Your task to perform on an android device: Search for seafood restaurants on Google Maps Image 0: 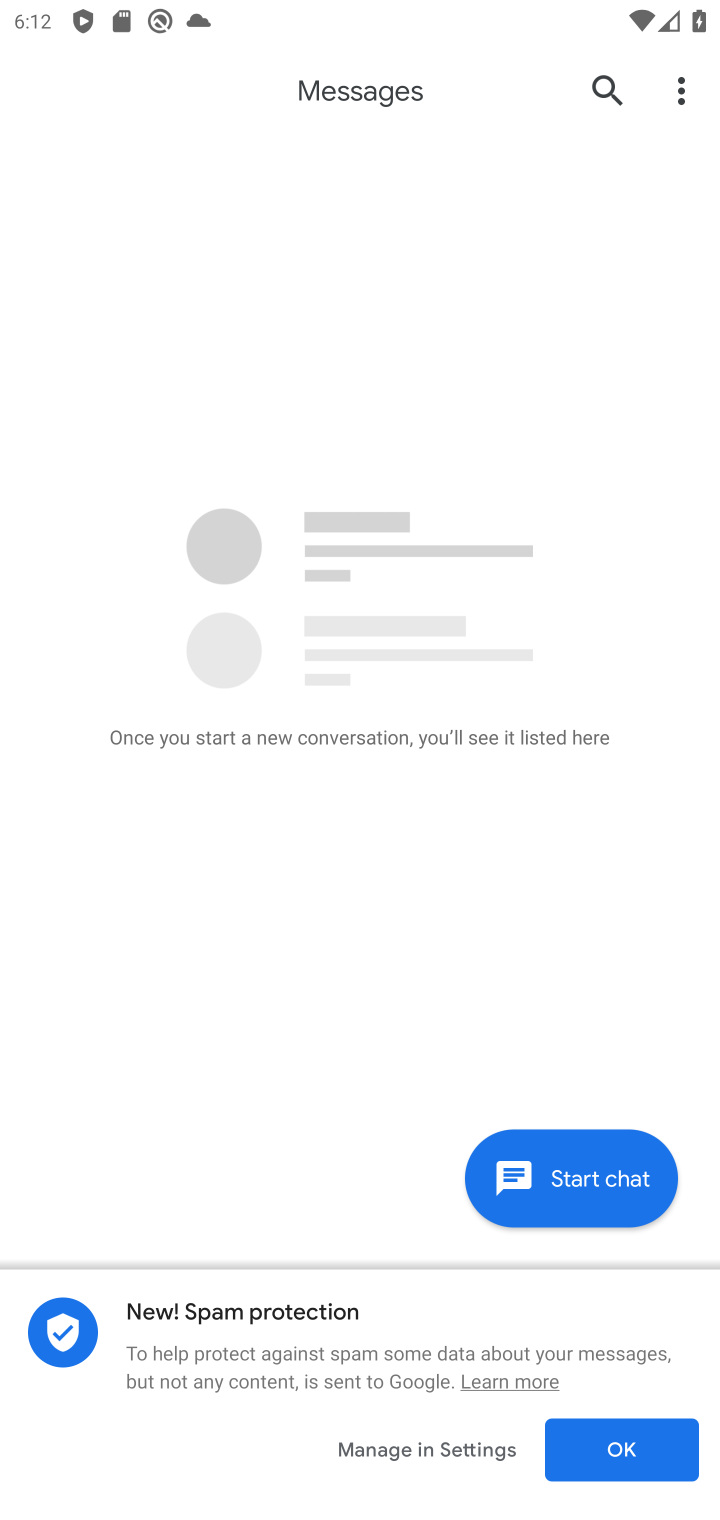
Step 0: press home button
Your task to perform on an android device: Search for seafood restaurants on Google Maps Image 1: 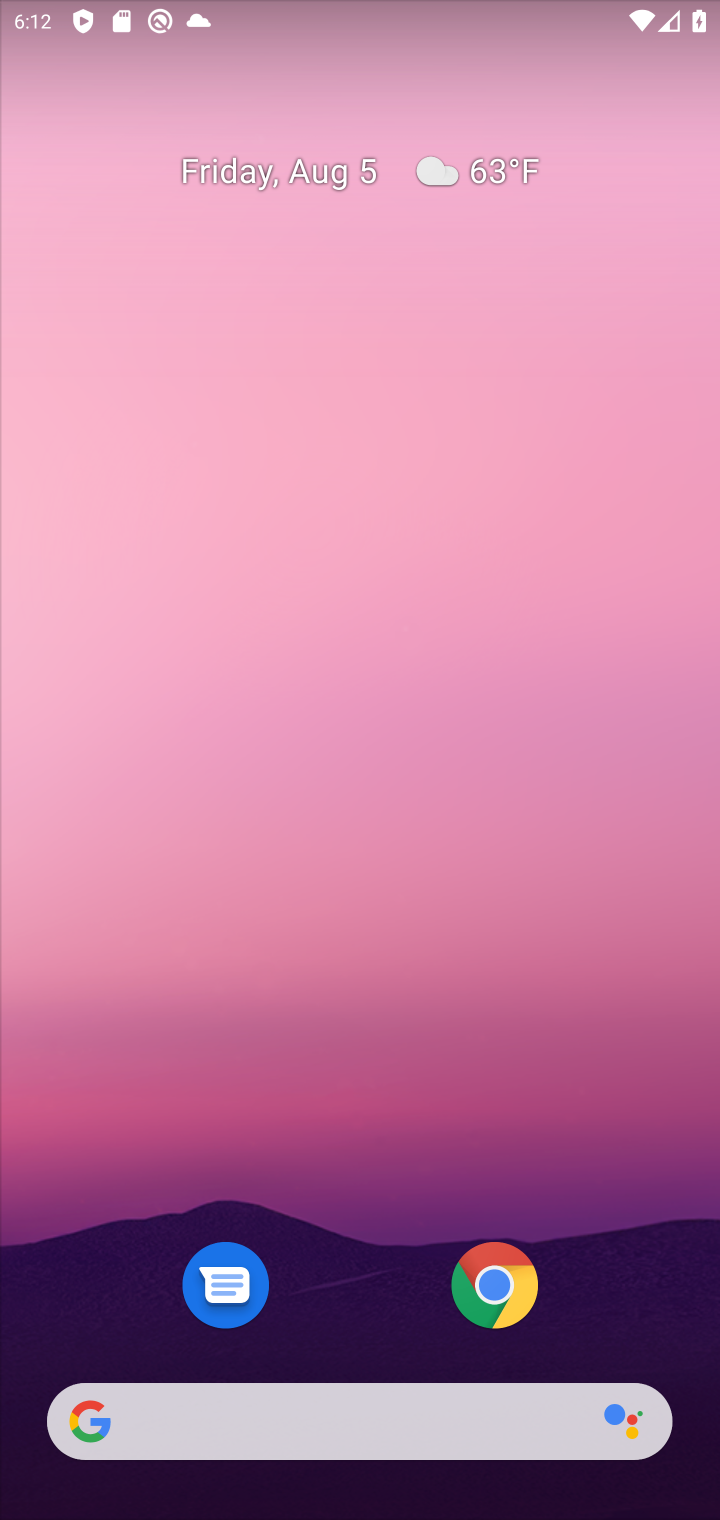
Step 1: drag from (347, 1237) to (347, 381)
Your task to perform on an android device: Search for seafood restaurants on Google Maps Image 2: 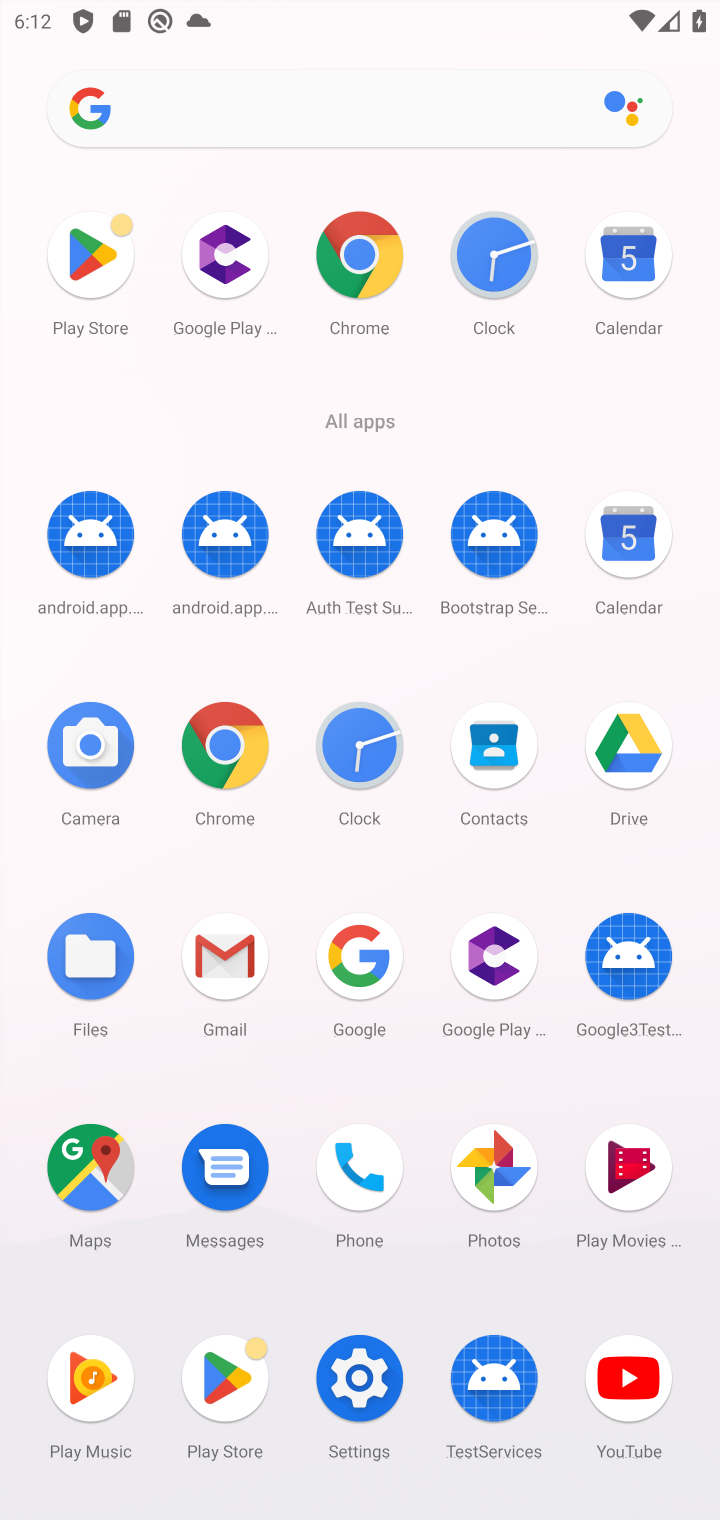
Step 2: click (79, 1177)
Your task to perform on an android device: Search for seafood restaurants on Google Maps Image 3: 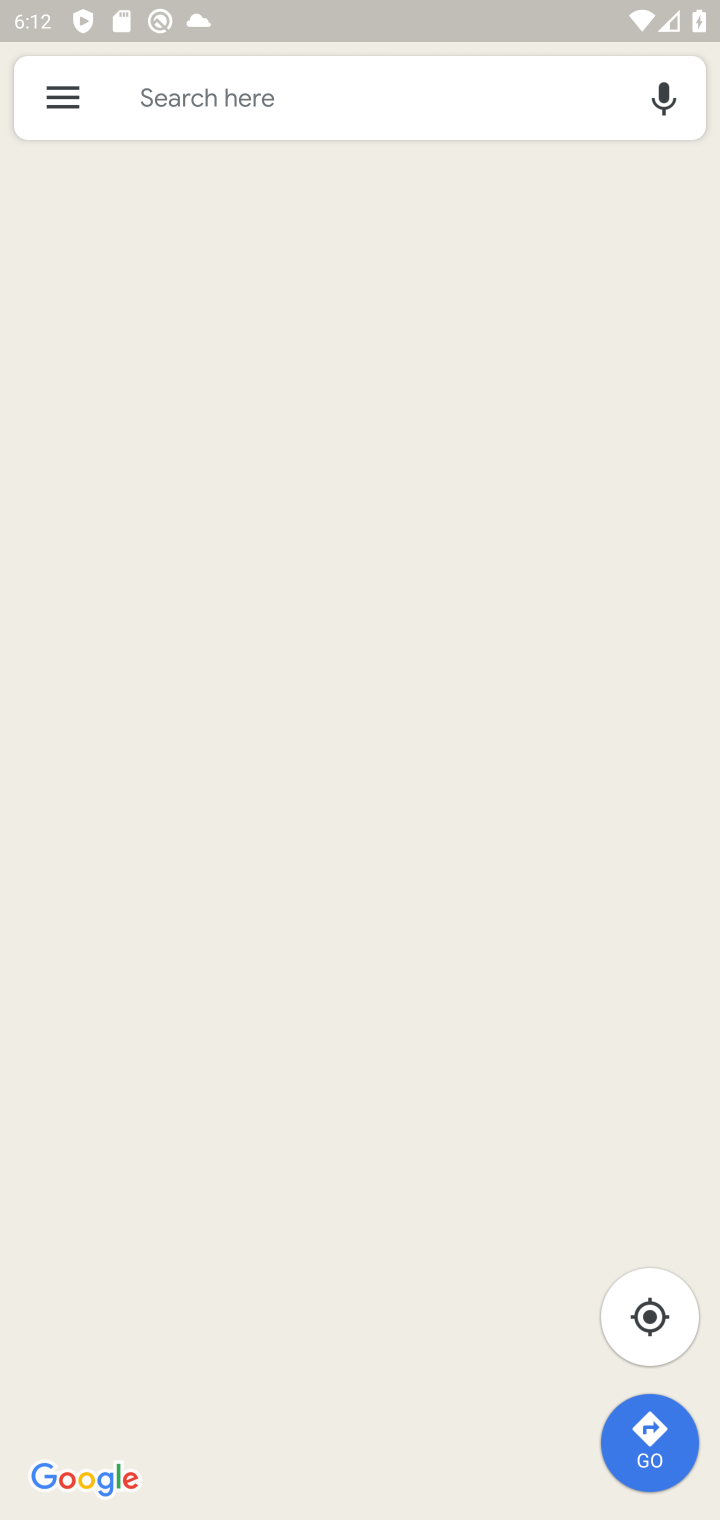
Step 3: click (189, 113)
Your task to perform on an android device: Search for seafood restaurants on Google Maps Image 4: 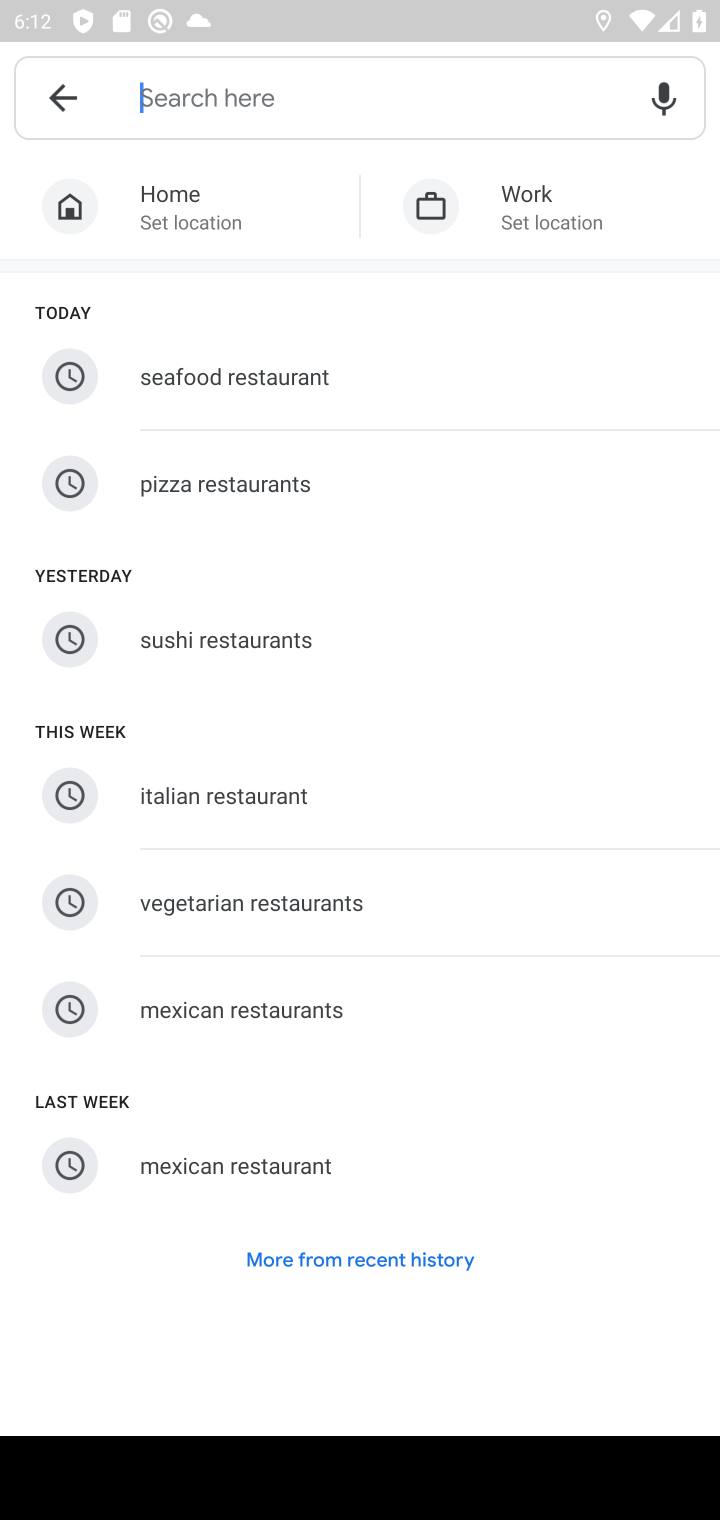
Step 4: type "seafood restaurants"
Your task to perform on an android device: Search for seafood restaurants on Google Maps Image 5: 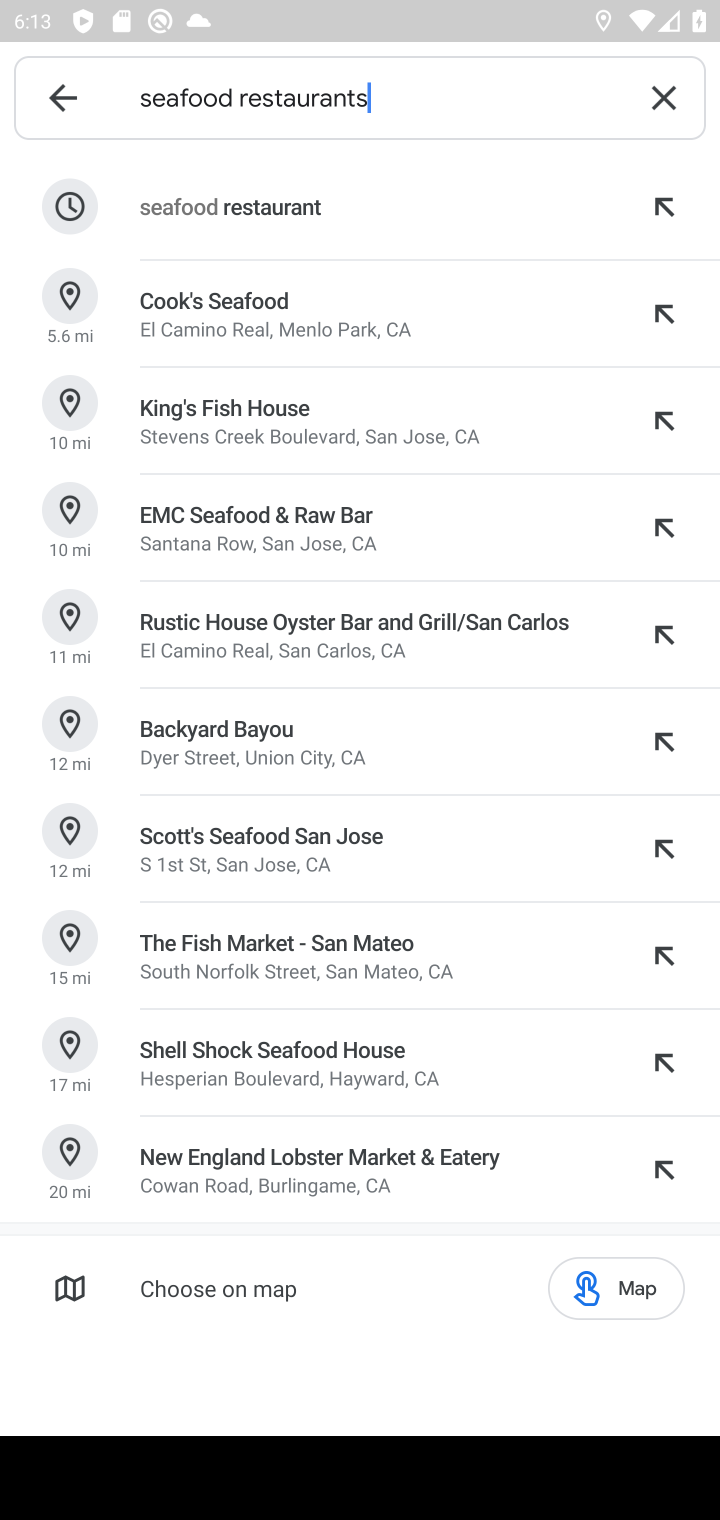
Step 5: click (272, 211)
Your task to perform on an android device: Search for seafood restaurants on Google Maps Image 6: 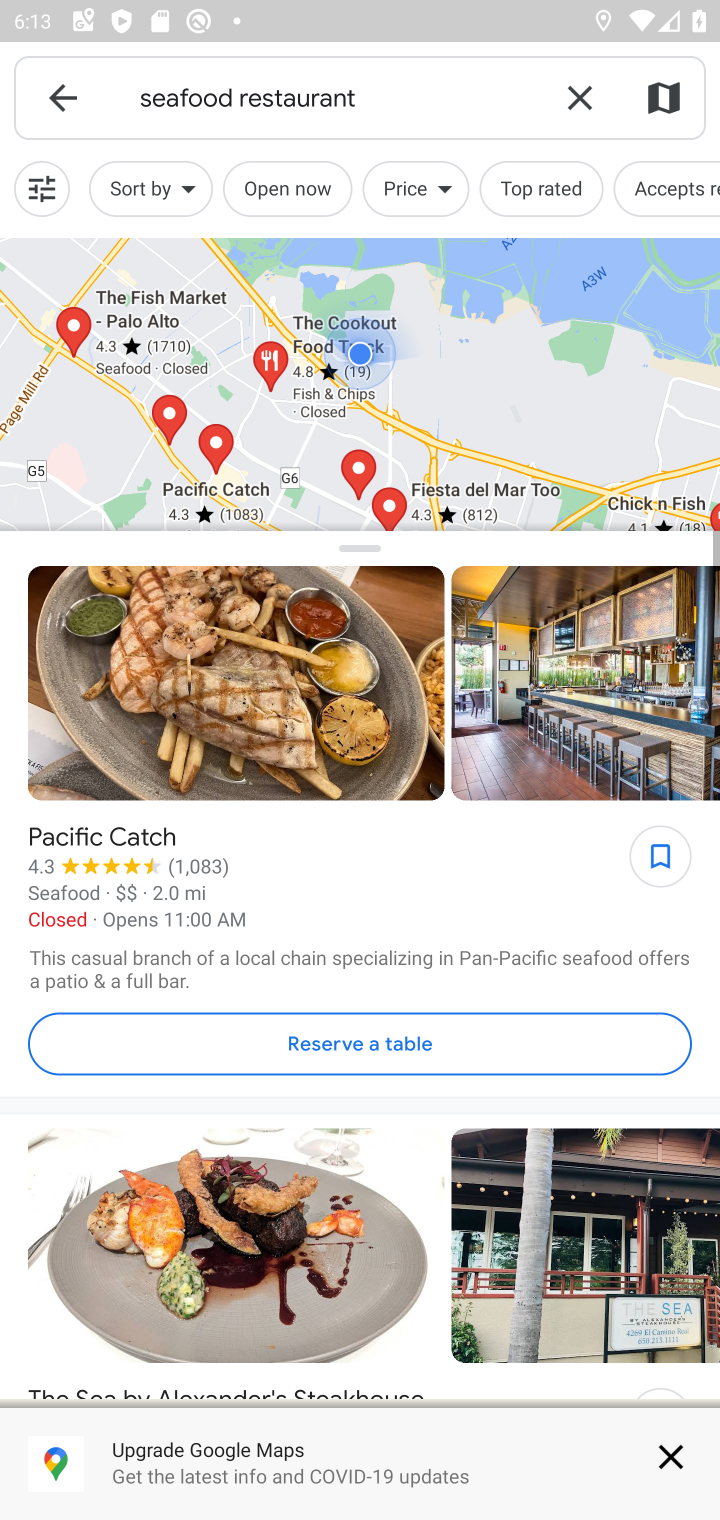
Step 6: task complete